Your task to perform on an android device: Open privacy settings Image 0: 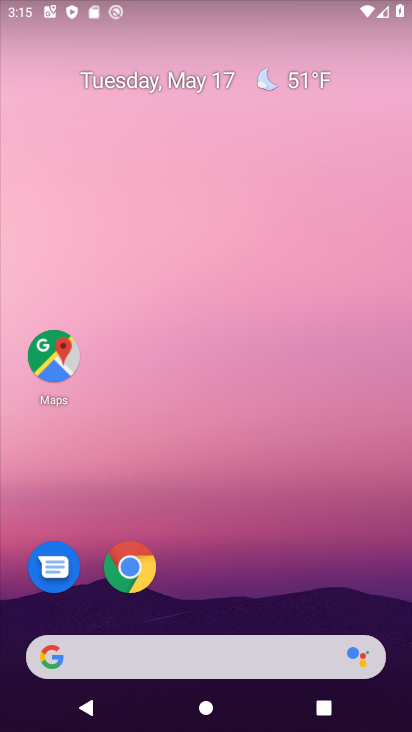
Step 0: drag from (219, 642) to (152, 17)
Your task to perform on an android device: Open privacy settings Image 1: 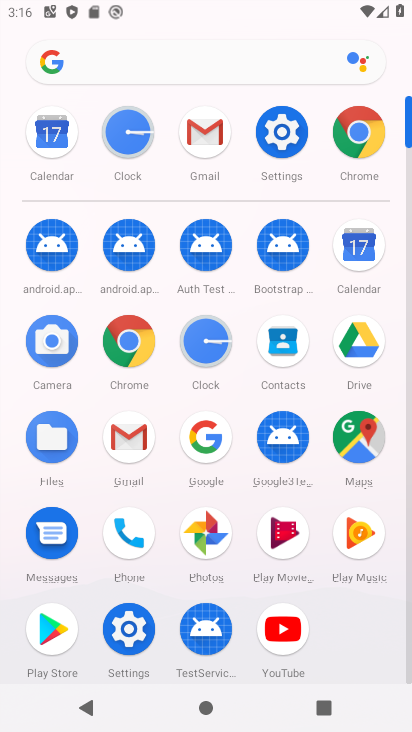
Step 1: click (138, 616)
Your task to perform on an android device: Open privacy settings Image 2: 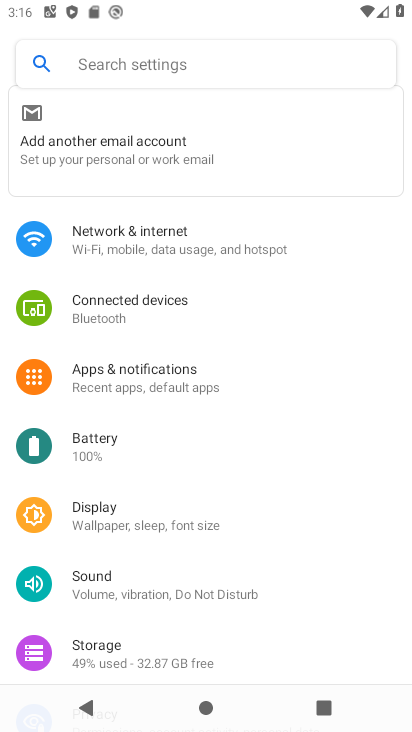
Step 2: drag from (130, 578) to (171, 304)
Your task to perform on an android device: Open privacy settings Image 3: 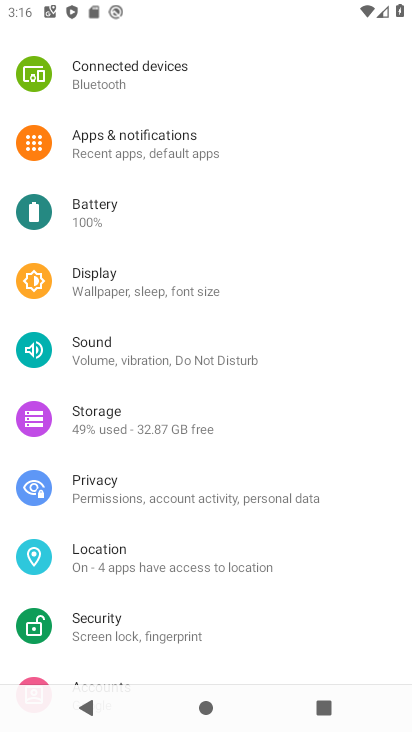
Step 3: click (107, 483)
Your task to perform on an android device: Open privacy settings Image 4: 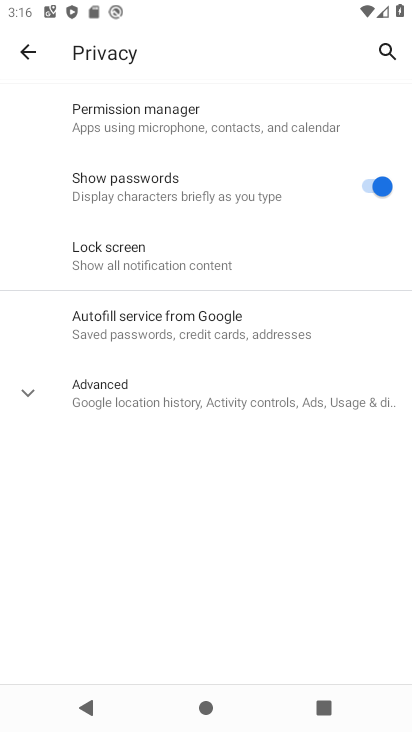
Step 4: task complete